Your task to perform on an android device: Go to Google maps Image 0: 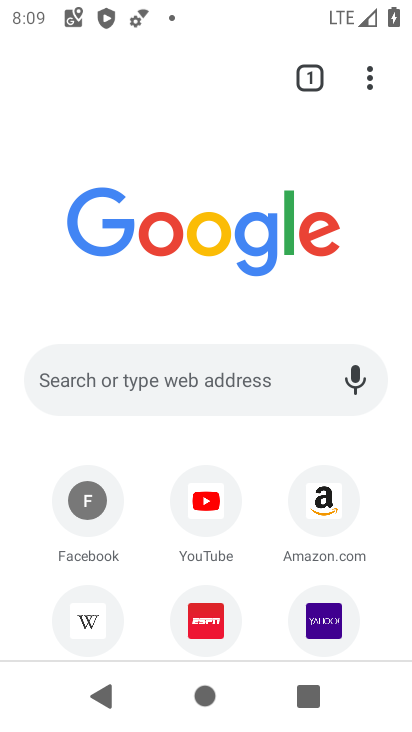
Step 0: press back button
Your task to perform on an android device: Go to Google maps Image 1: 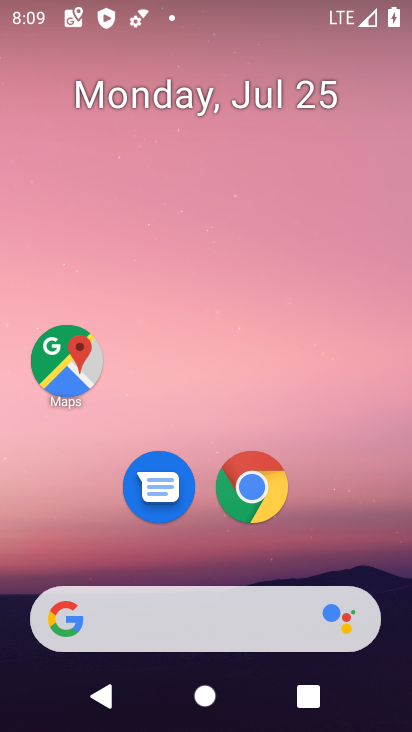
Step 1: click (73, 359)
Your task to perform on an android device: Go to Google maps Image 2: 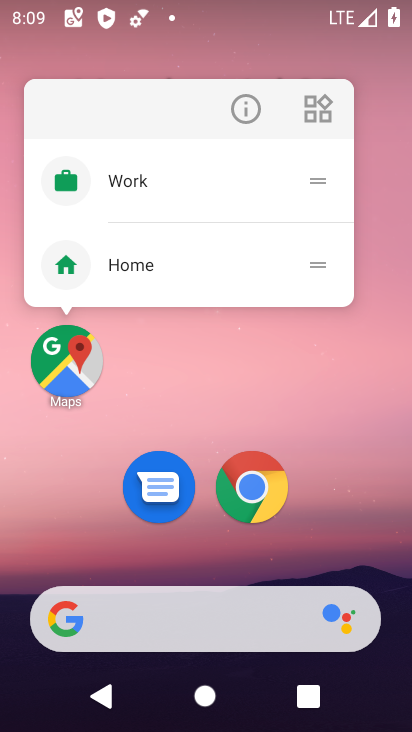
Step 2: click (70, 358)
Your task to perform on an android device: Go to Google maps Image 3: 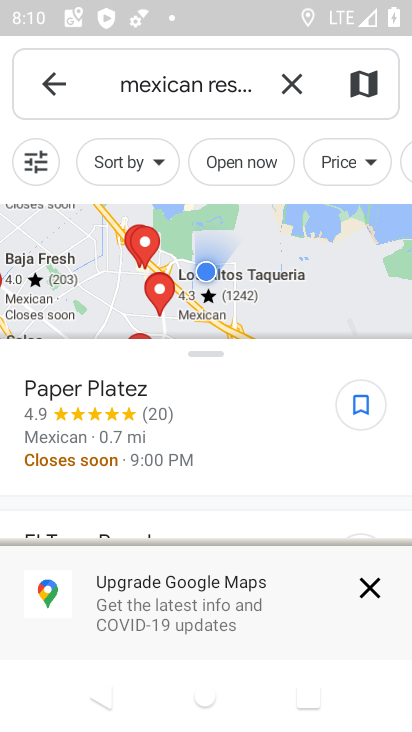
Step 3: task complete